Your task to perform on an android device: Turn off the flashlight Image 0: 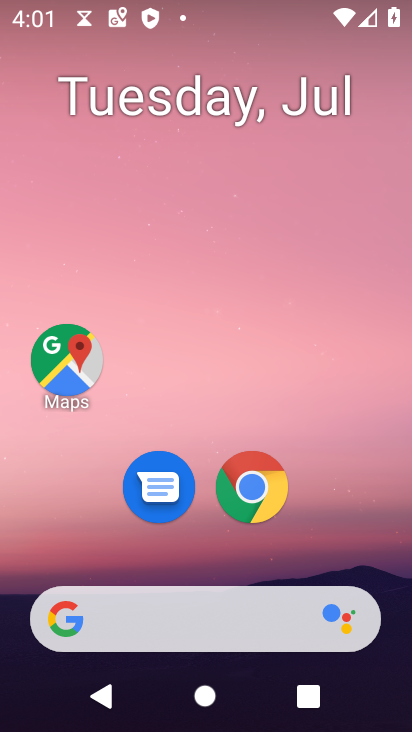
Step 0: drag from (185, 535) to (236, 0)
Your task to perform on an android device: Turn off the flashlight Image 1: 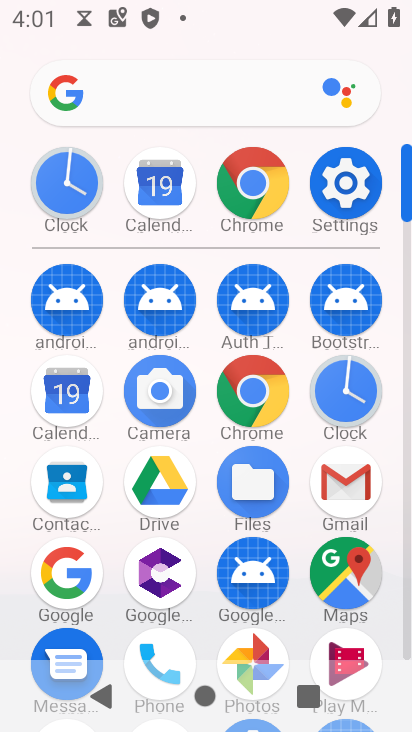
Step 1: click (343, 189)
Your task to perform on an android device: Turn off the flashlight Image 2: 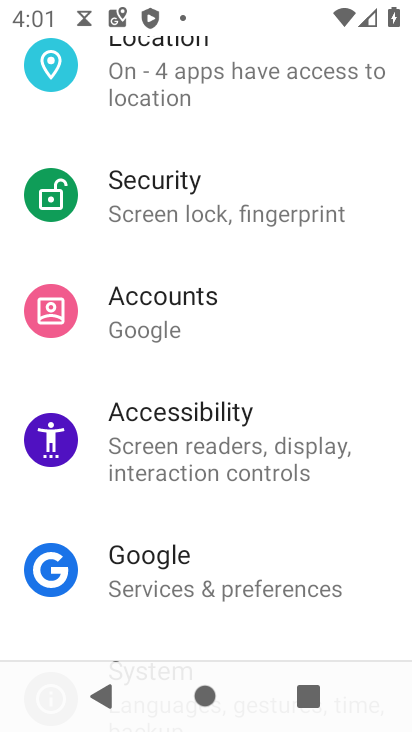
Step 2: drag from (231, 121) to (142, 728)
Your task to perform on an android device: Turn off the flashlight Image 3: 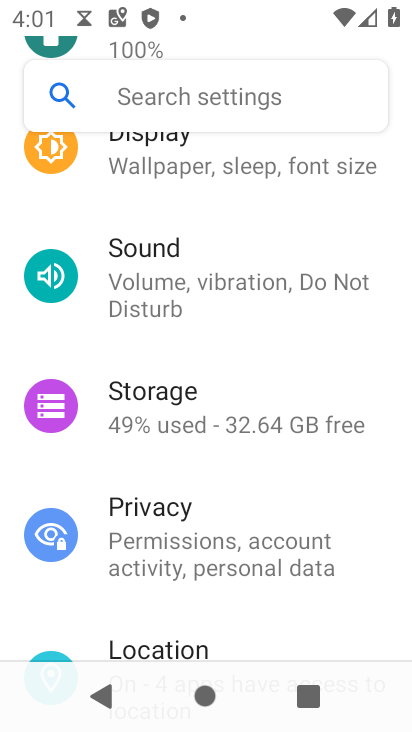
Step 3: click (167, 94)
Your task to perform on an android device: Turn off the flashlight Image 4: 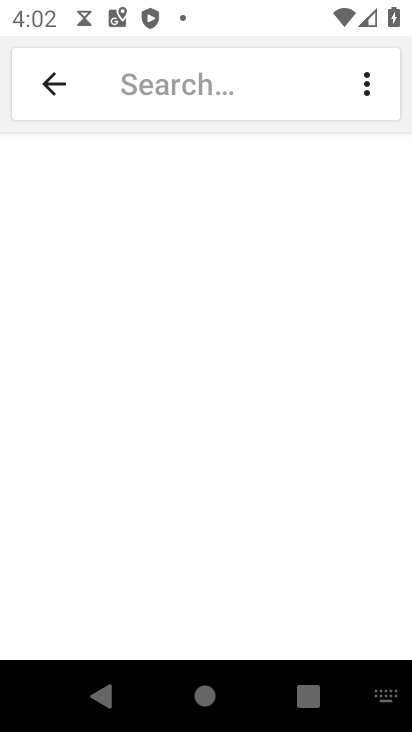
Step 4: type "flashlight"
Your task to perform on an android device: Turn off the flashlight Image 5: 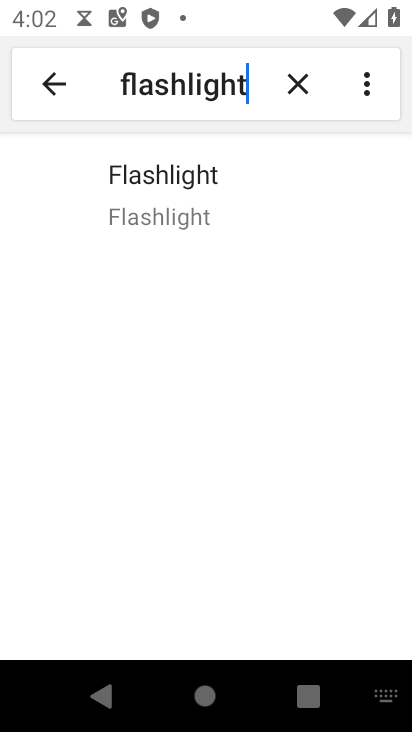
Step 5: click (166, 186)
Your task to perform on an android device: Turn off the flashlight Image 6: 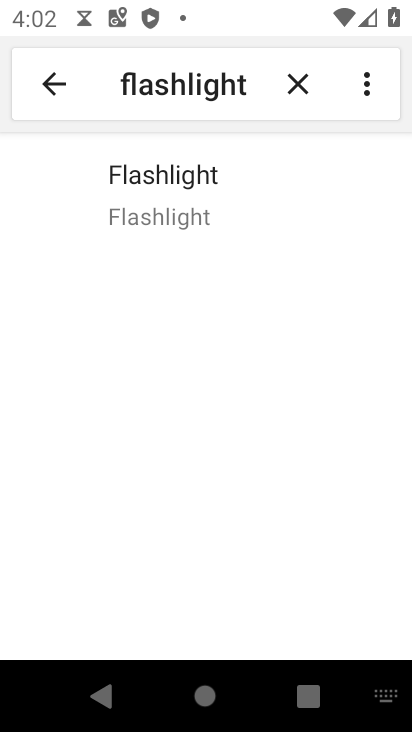
Step 6: task complete